Your task to perform on an android device: show emergency info Image 0: 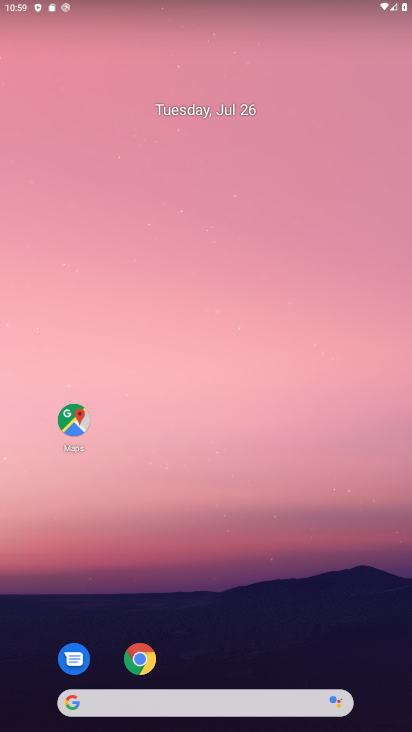
Step 0: drag from (60, 640) to (255, 196)
Your task to perform on an android device: show emergency info Image 1: 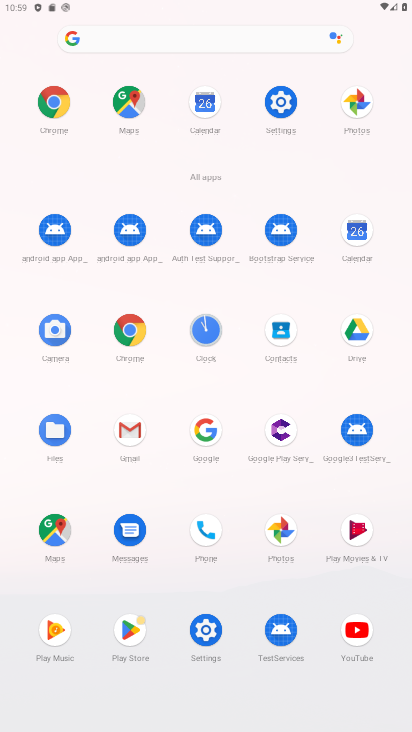
Step 1: click (285, 102)
Your task to perform on an android device: show emergency info Image 2: 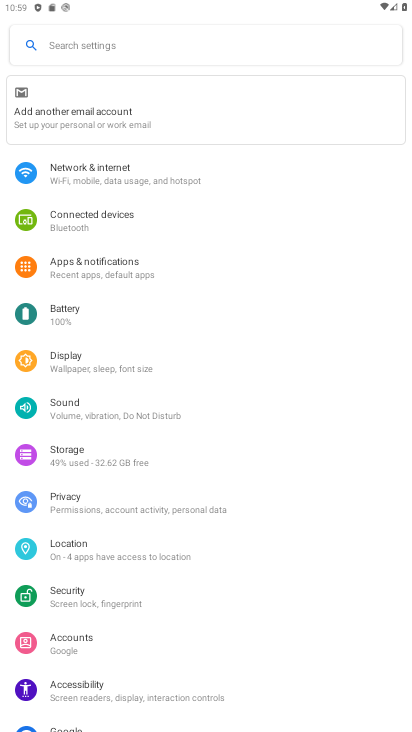
Step 2: drag from (31, 596) to (212, 147)
Your task to perform on an android device: show emergency info Image 3: 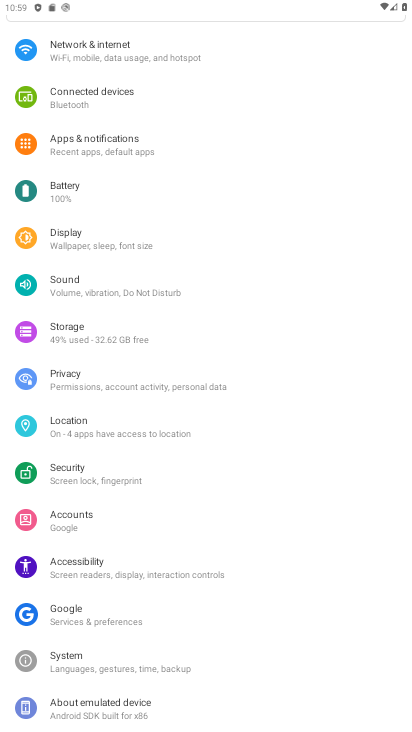
Step 3: drag from (22, 700) to (241, 232)
Your task to perform on an android device: show emergency info Image 4: 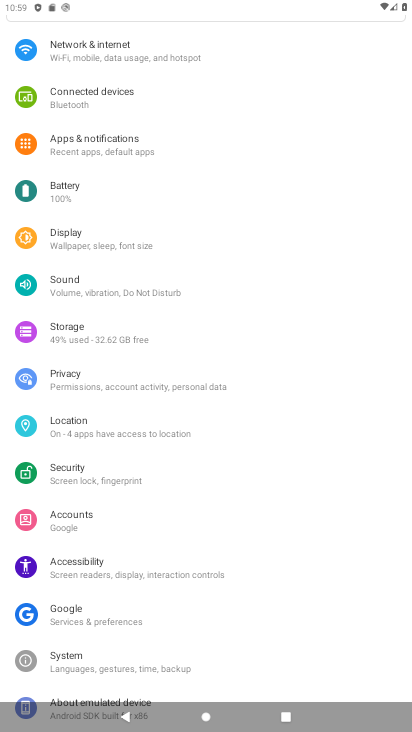
Step 4: click (122, 692)
Your task to perform on an android device: show emergency info Image 5: 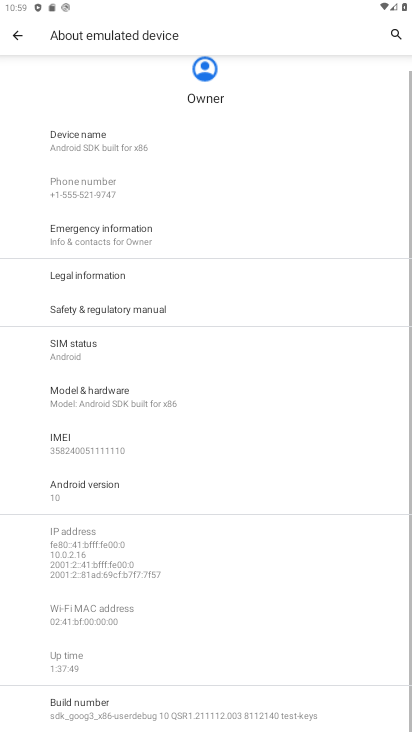
Step 5: click (170, 230)
Your task to perform on an android device: show emergency info Image 6: 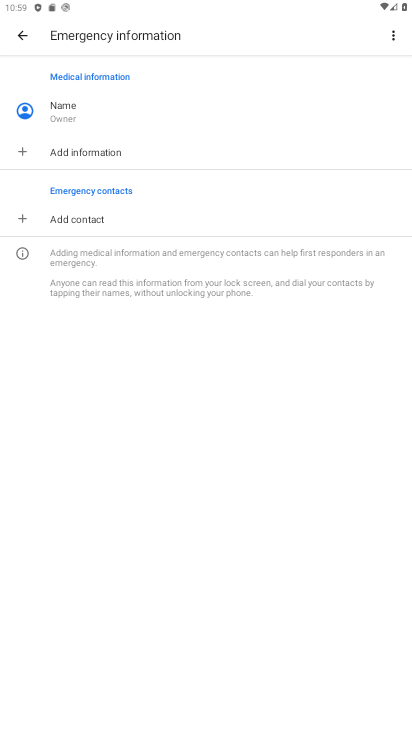
Step 6: task complete